Your task to perform on an android device: change the upload size in google photos Image 0: 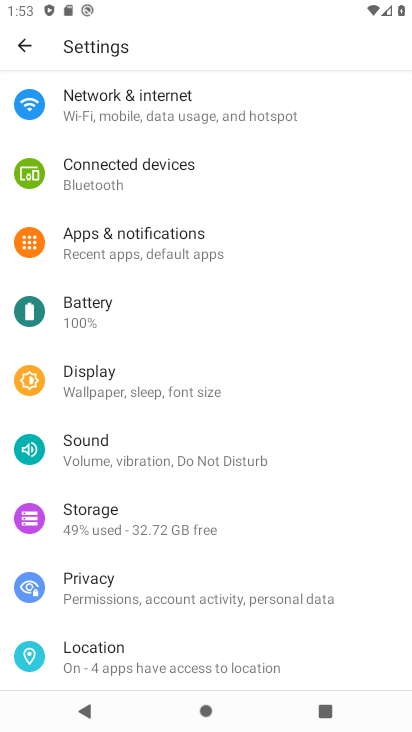
Step 0: press back button
Your task to perform on an android device: change the upload size in google photos Image 1: 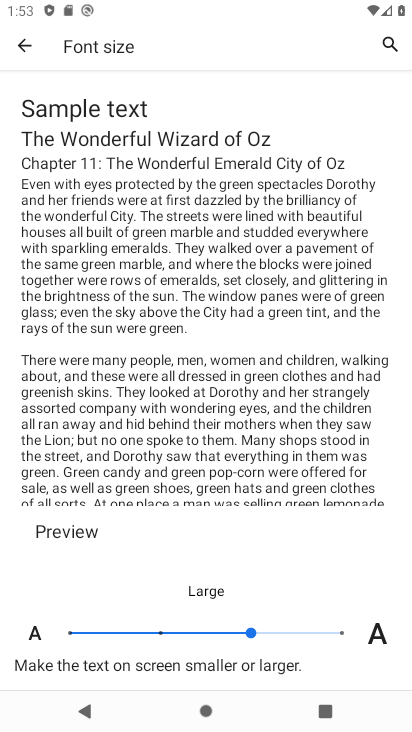
Step 1: press back button
Your task to perform on an android device: change the upload size in google photos Image 2: 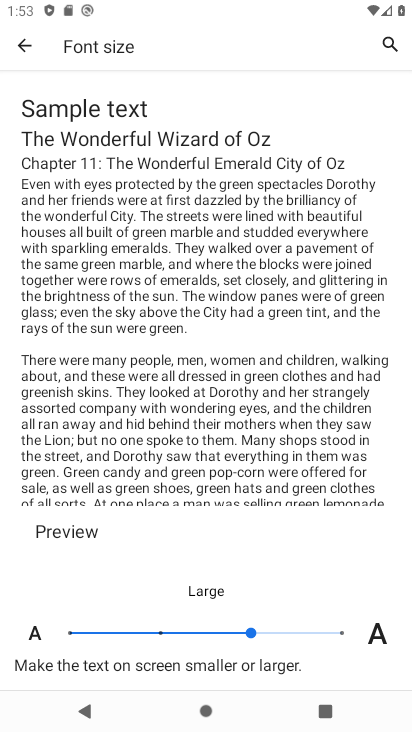
Step 2: press back button
Your task to perform on an android device: change the upload size in google photos Image 3: 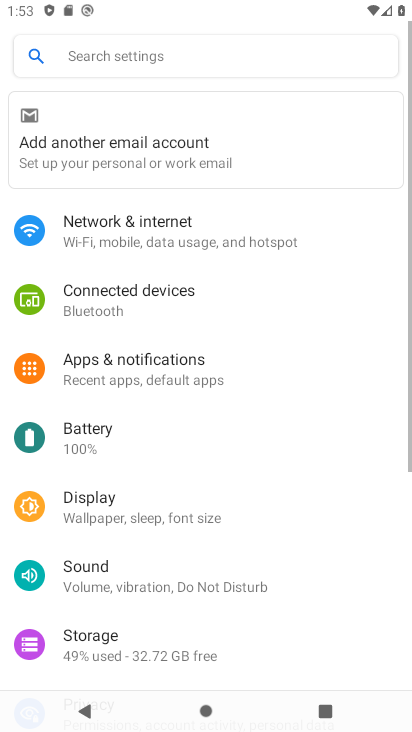
Step 3: press back button
Your task to perform on an android device: change the upload size in google photos Image 4: 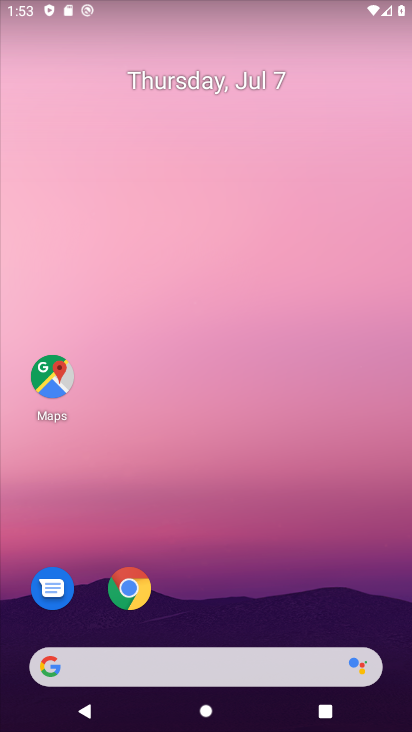
Step 4: drag from (350, 614) to (314, 104)
Your task to perform on an android device: change the upload size in google photos Image 5: 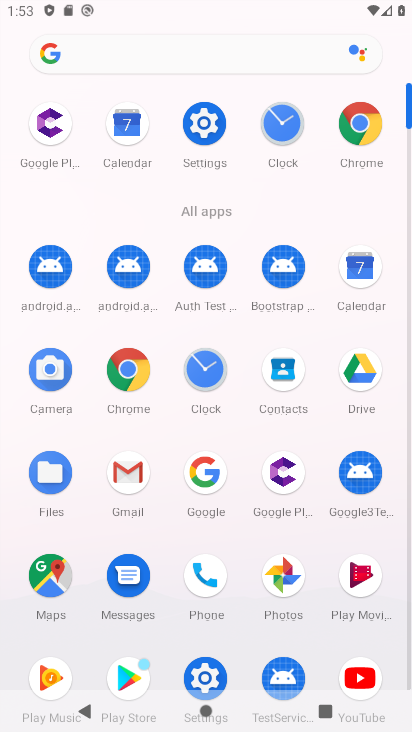
Step 5: click (286, 577)
Your task to perform on an android device: change the upload size in google photos Image 6: 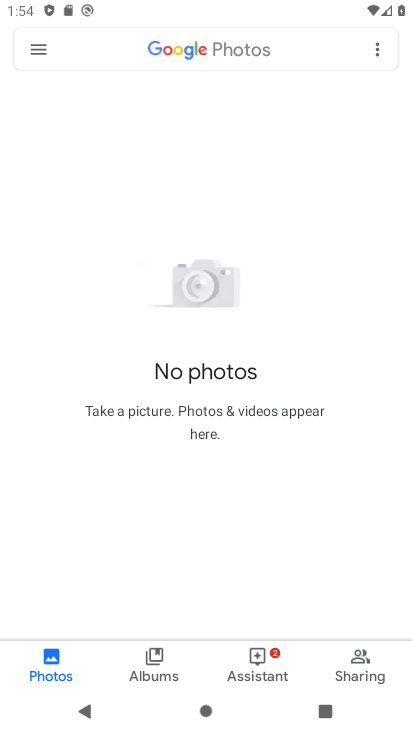
Step 6: click (40, 53)
Your task to perform on an android device: change the upload size in google photos Image 7: 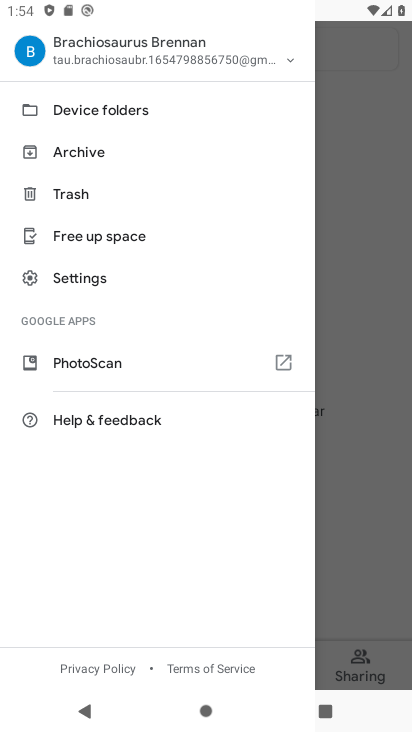
Step 7: click (75, 283)
Your task to perform on an android device: change the upload size in google photos Image 8: 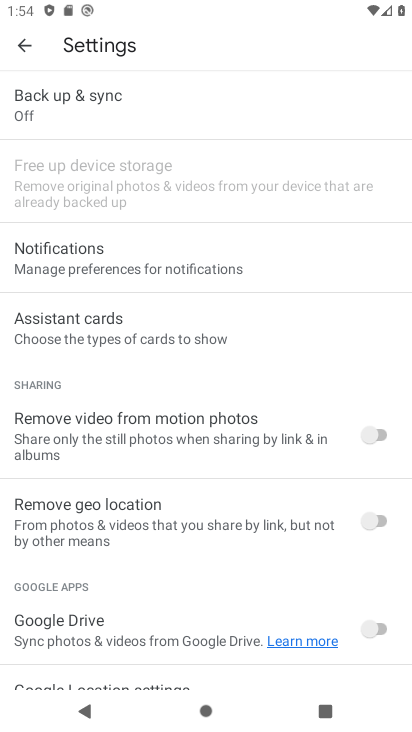
Step 8: click (76, 94)
Your task to perform on an android device: change the upload size in google photos Image 9: 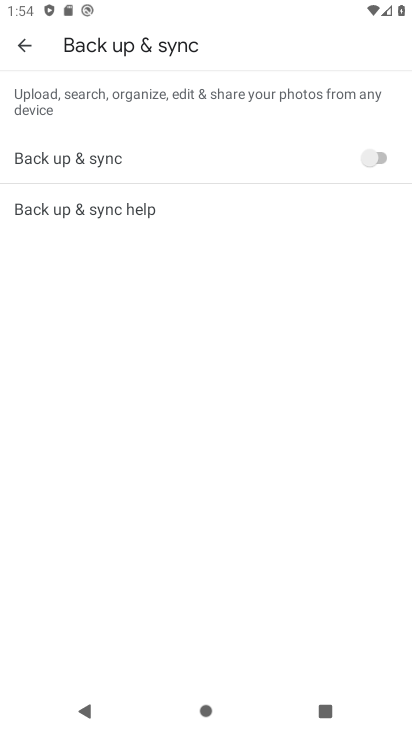
Step 9: click (382, 157)
Your task to perform on an android device: change the upload size in google photos Image 10: 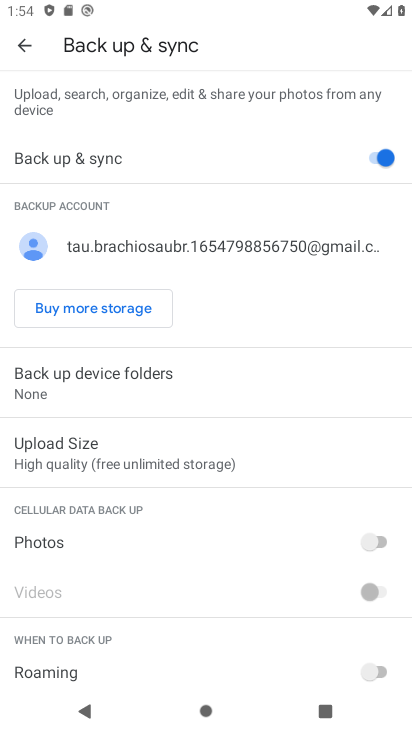
Step 10: click (57, 456)
Your task to perform on an android device: change the upload size in google photos Image 11: 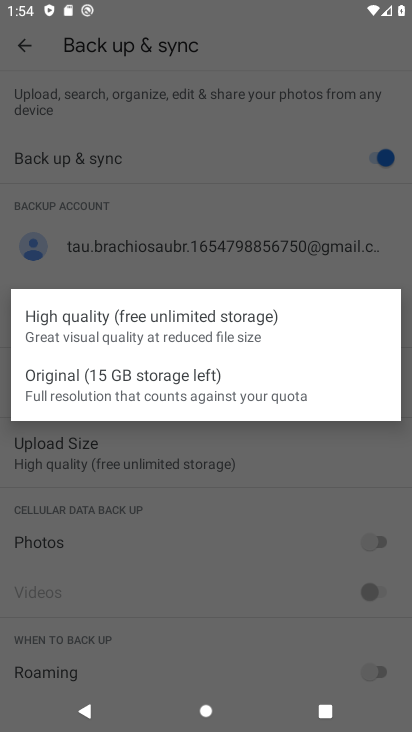
Step 11: click (86, 393)
Your task to perform on an android device: change the upload size in google photos Image 12: 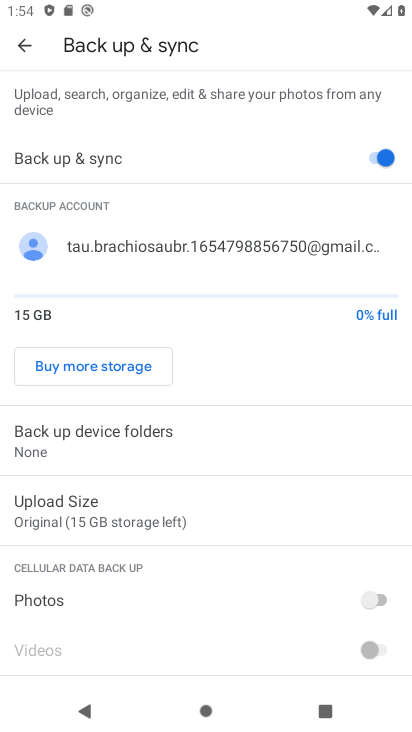
Step 12: task complete